Your task to perform on an android device: set an alarm Image 0: 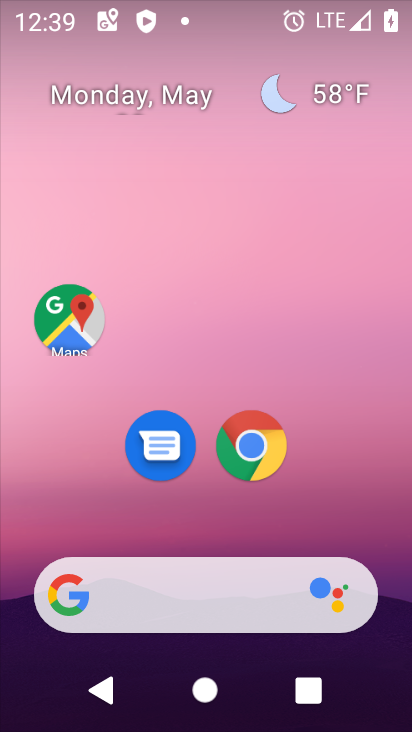
Step 0: drag from (200, 533) to (203, 3)
Your task to perform on an android device: set an alarm Image 1: 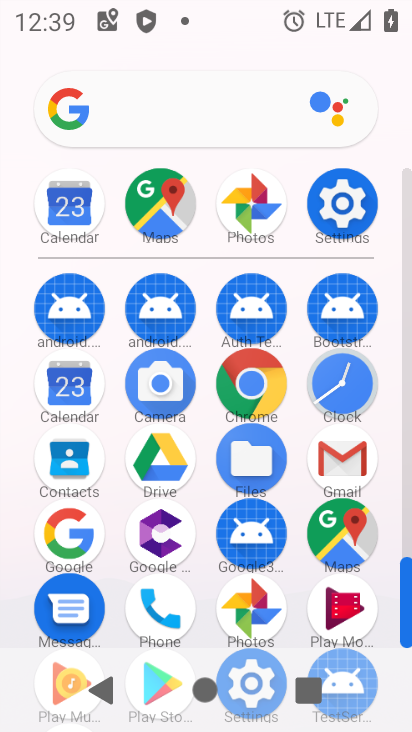
Step 1: drag from (204, 633) to (220, 94)
Your task to perform on an android device: set an alarm Image 2: 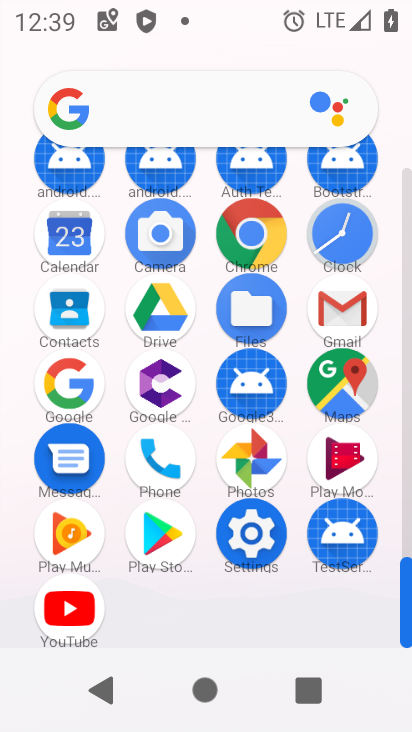
Step 2: click (341, 226)
Your task to perform on an android device: set an alarm Image 3: 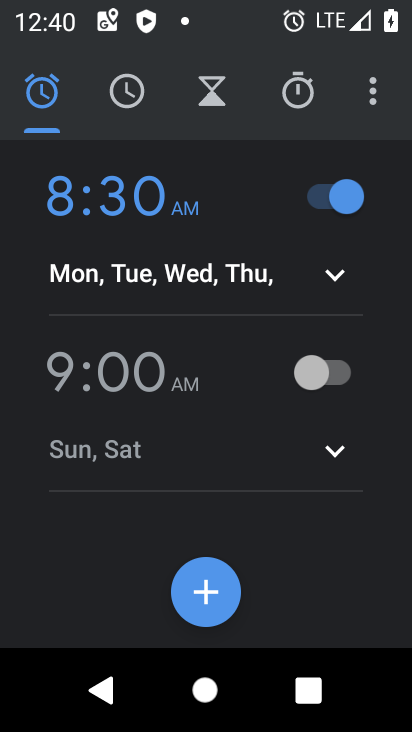
Step 3: click (329, 372)
Your task to perform on an android device: set an alarm Image 4: 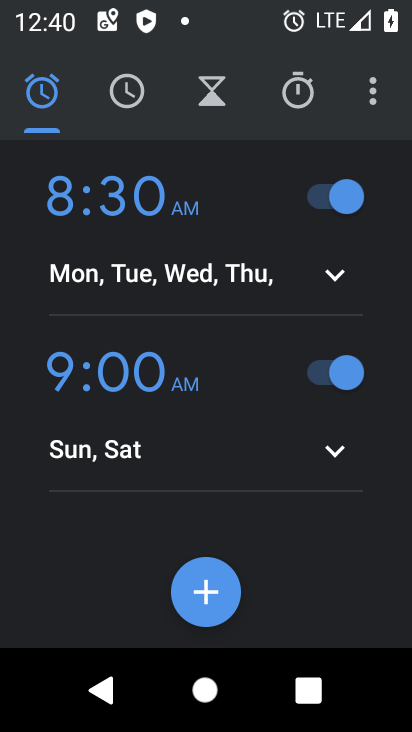
Step 4: task complete